Your task to perform on an android device: Open ESPN.com Image 0: 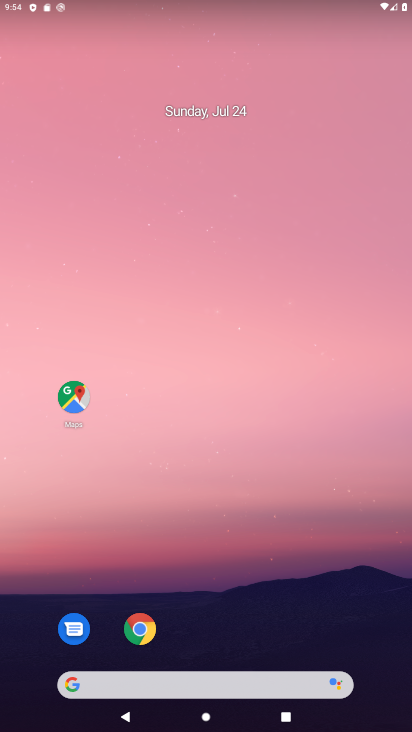
Step 0: click (141, 630)
Your task to perform on an android device: Open ESPN.com Image 1: 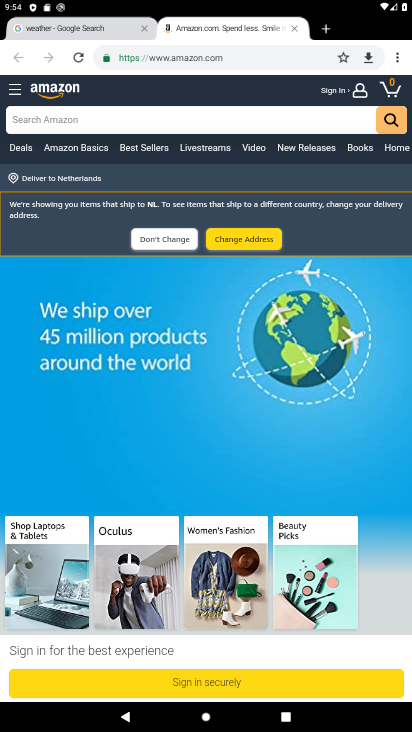
Step 1: click (279, 63)
Your task to perform on an android device: Open ESPN.com Image 2: 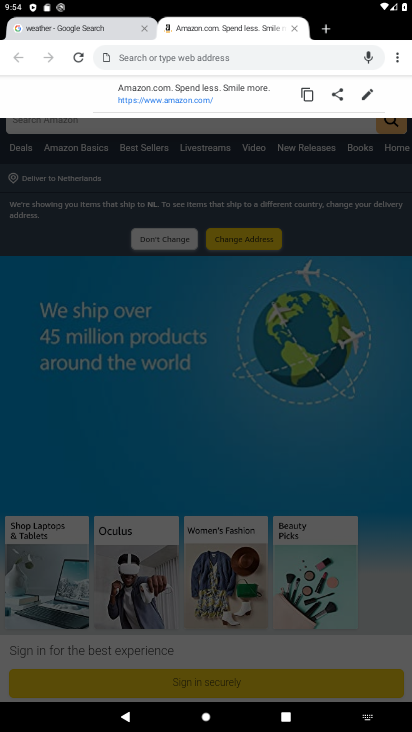
Step 2: type "ESPN.com"
Your task to perform on an android device: Open ESPN.com Image 3: 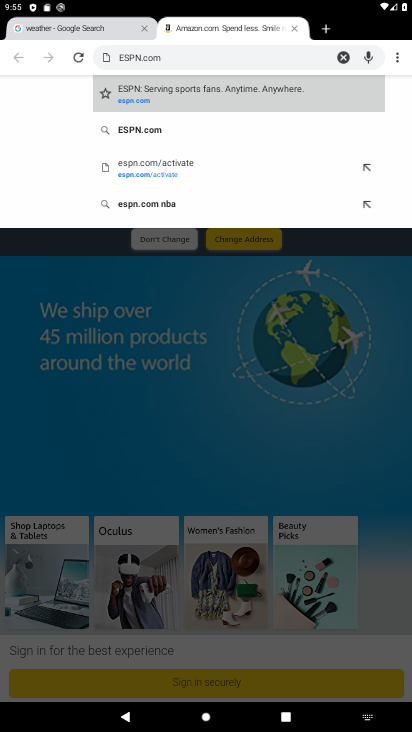
Step 3: click (159, 138)
Your task to perform on an android device: Open ESPN.com Image 4: 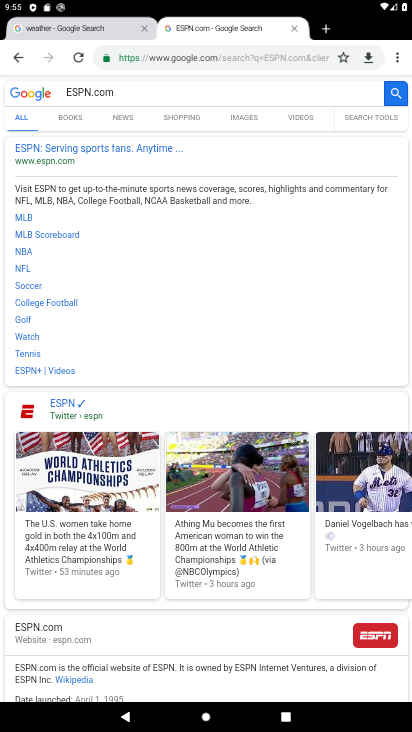
Step 4: click (129, 159)
Your task to perform on an android device: Open ESPN.com Image 5: 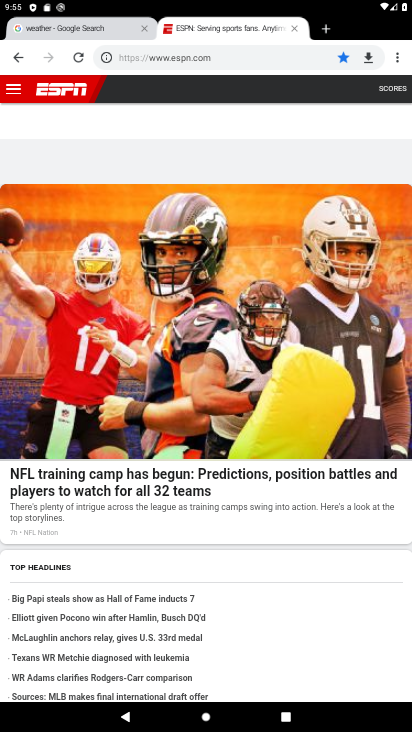
Step 5: task complete